Your task to perform on an android device: Open Wikipedia Image 0: 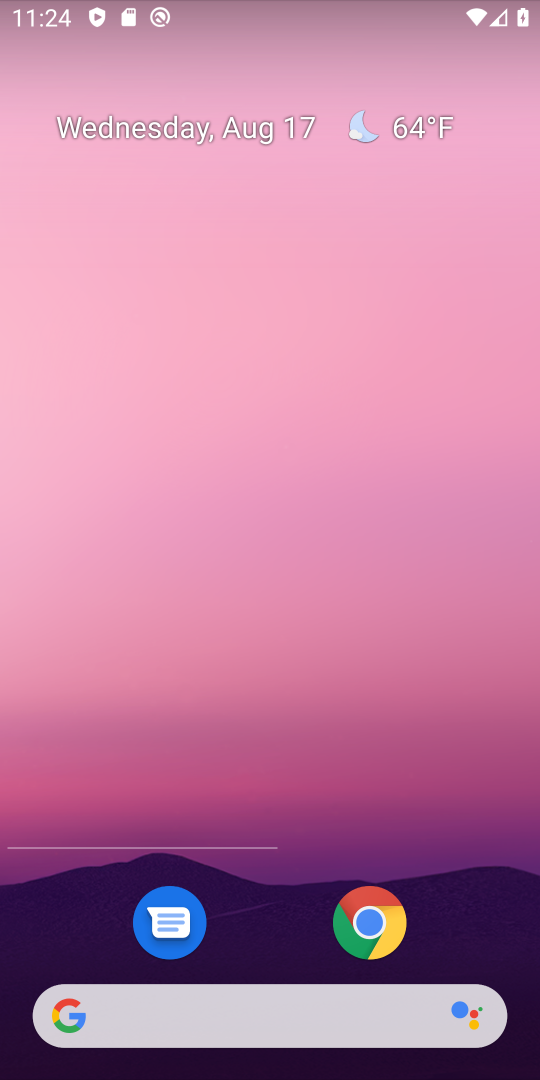
Step 0: press home button
Your task to perform on an android device: Open Wikipedia Image 1: 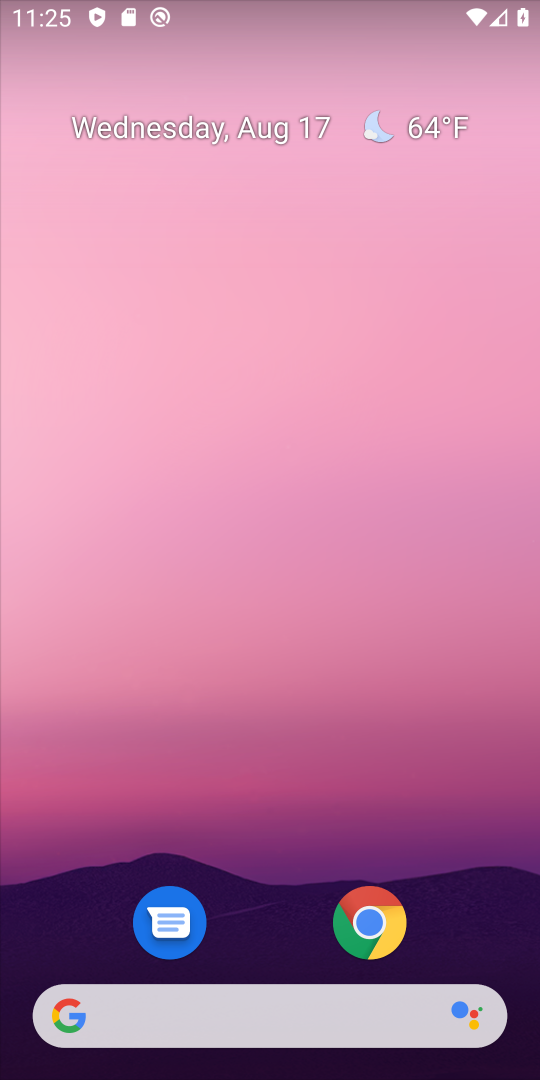
Step 1: click (371, 929)
Your task to perform on an android device: Open Wikipedia Image 2: 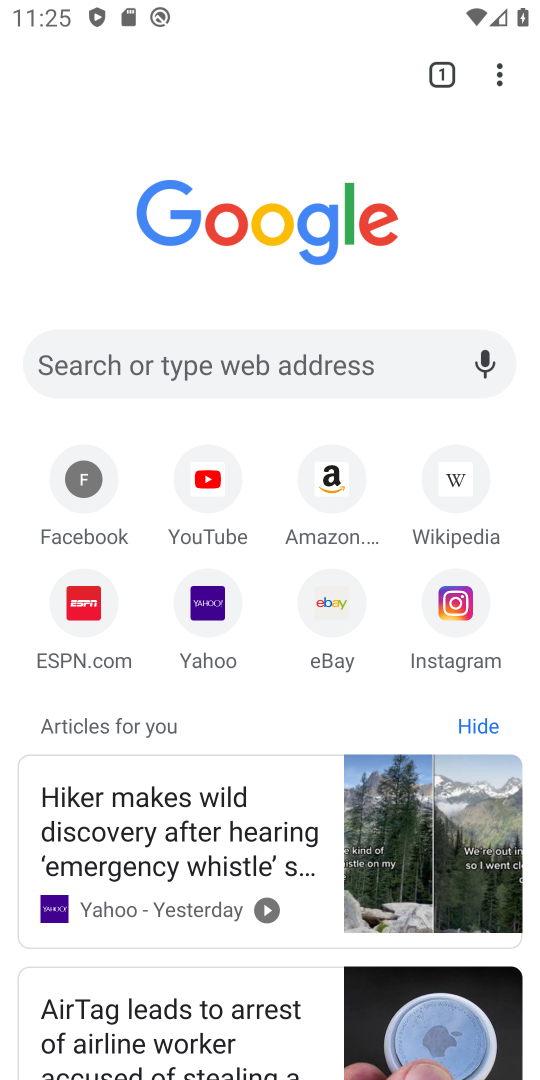
Step 2: click (455, 471)
Your task to perform on an android device: Open Wikipedia Image 3: 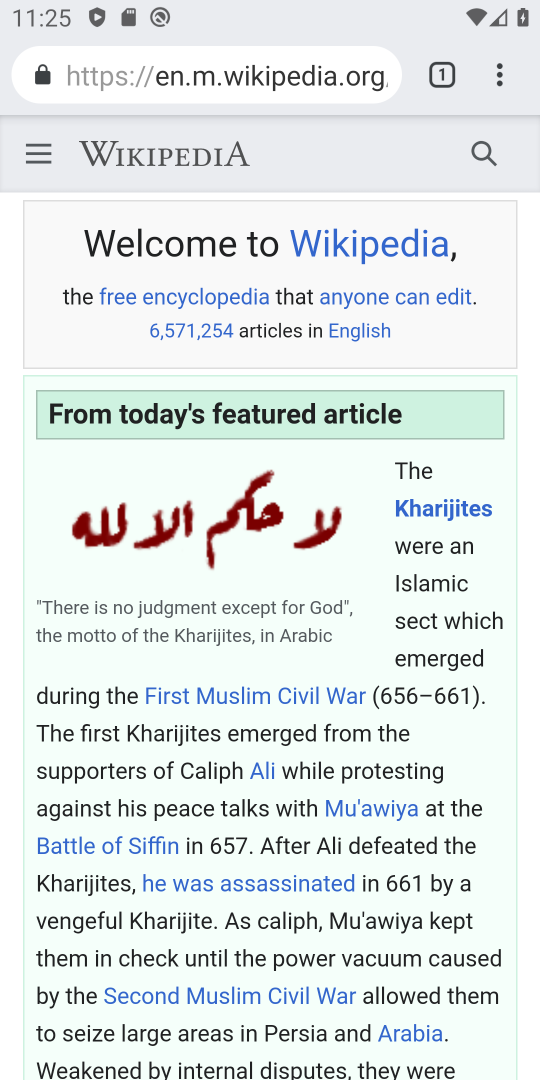
Step 3: task complete